Your task to perform on an android device: turn on sleep mode Image 0: 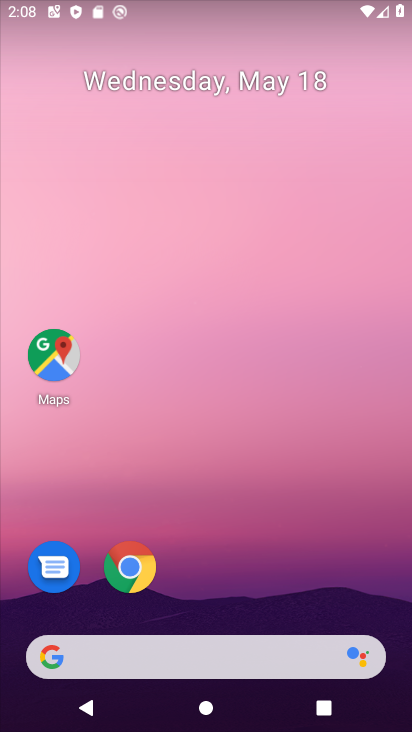
Step 0: drag from (282, 578) to (260, 164)
Your task to perform on an android device: turn on sleep mode Image 1: 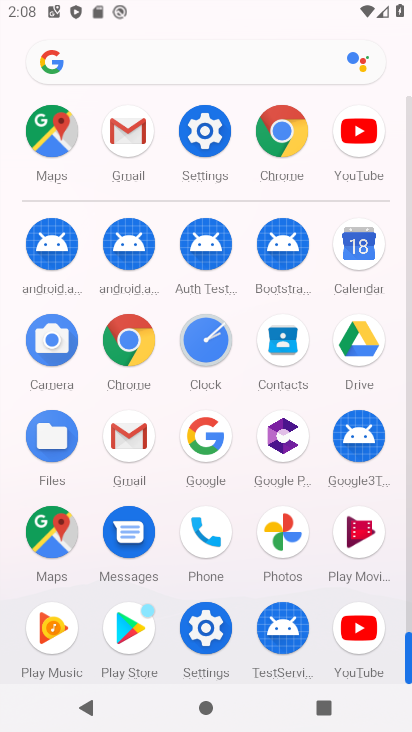
Step 1: click (214, 145)
Your task to perform on an android device: turn on sleep mode Image 2: 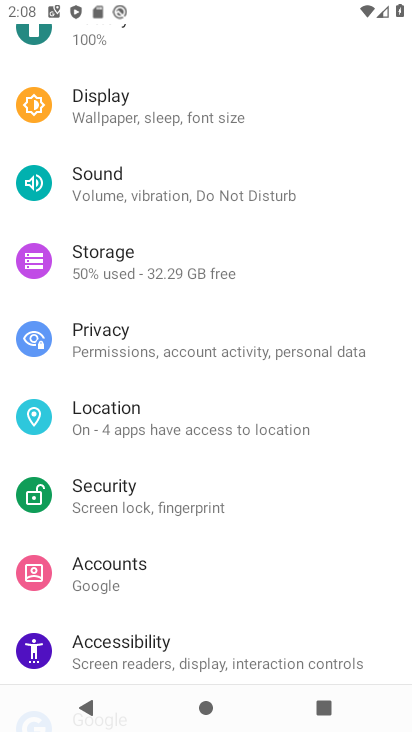
Step 2: click (187, 114)
Your task to perform on an android device: turn on sleep mode Image 3: 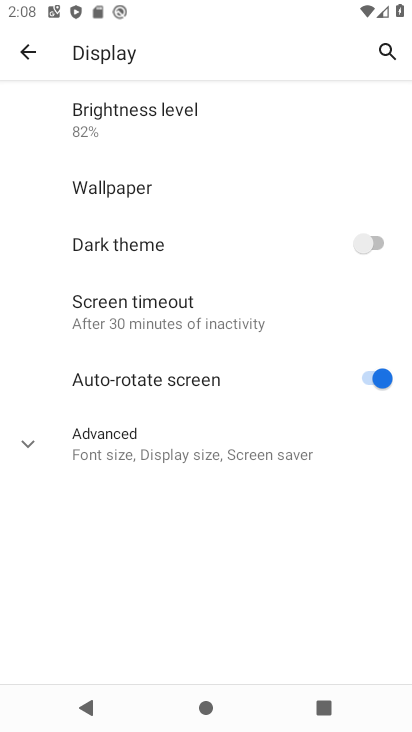
Step 3: click (216, 331)
Your task to perform on an android device: turn on sleep mode Image 4: 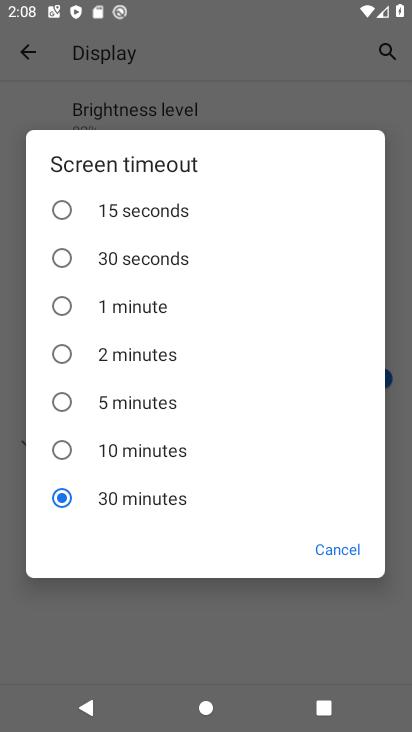
Step 4: task complete